Your task to perform on an android device: Open Yahoo.com Image 0: 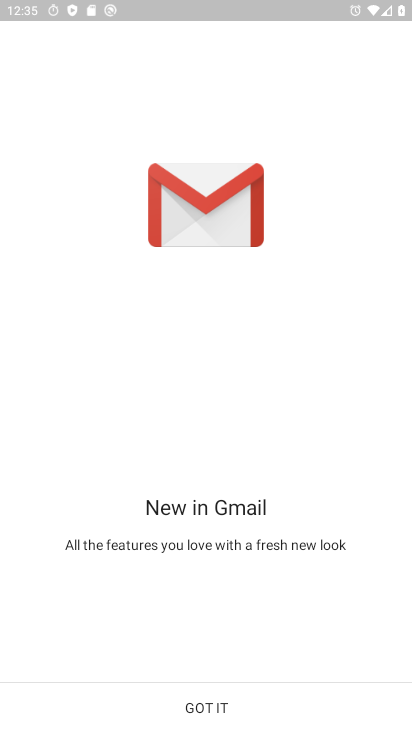
Step 0: press home button
Your task to perform on an android device: Open Yahoo.com Image 1: 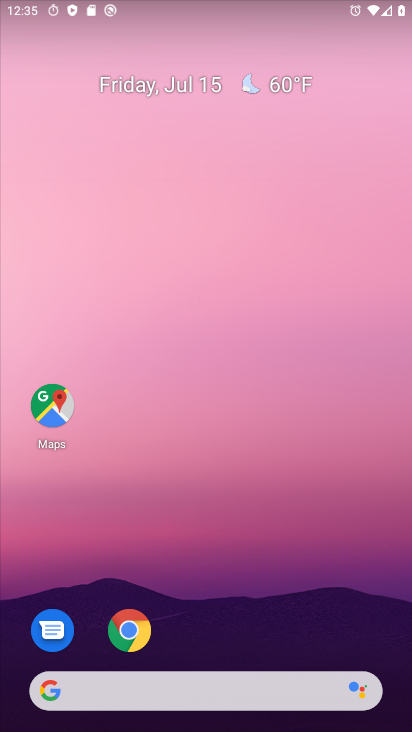
Step 1: click (126, 617)
Your task to perform on an android device: Open Yahoo.com Image 2: 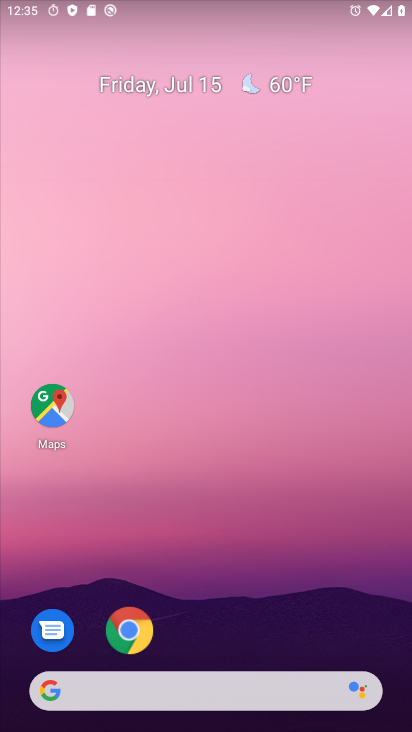
Step 2: click (129, 638)
Your task to perform on an android device: Open Yahoo.com Image 3: 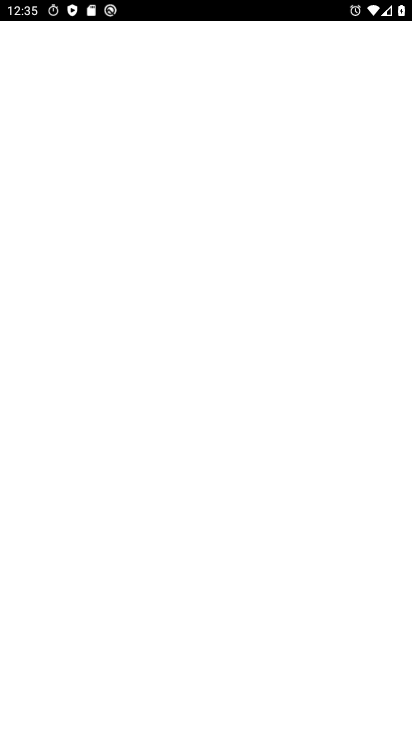
Step 3: click (129, 638)
Your task to perform on an android device: Open Yahoo.com Image 4: 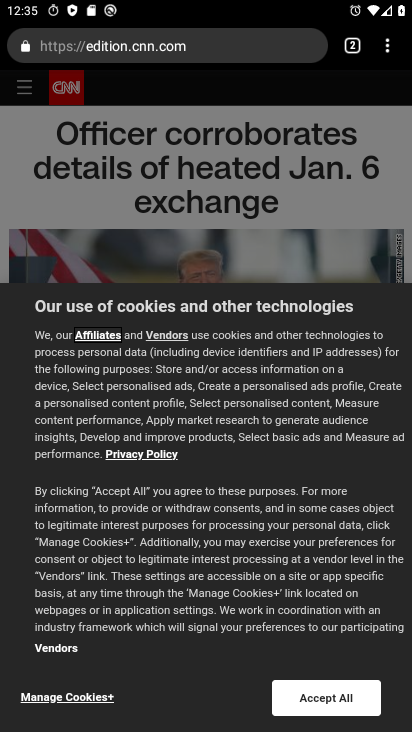
Step 4: click (146, 43)
Your task to perform on an android device: Open Yahoo.com Image 5: 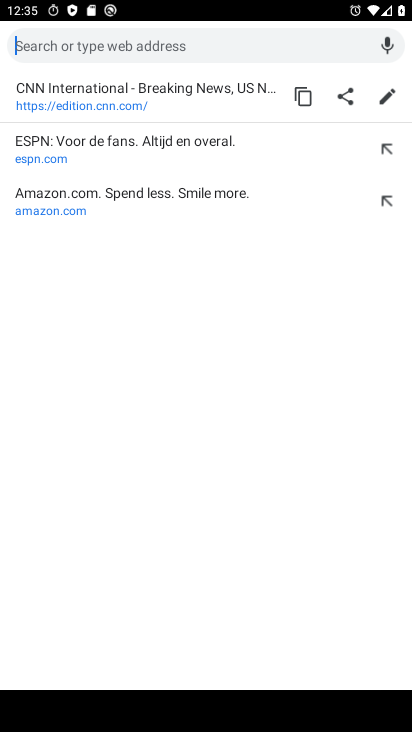
Step 5: type "www.yahoo.com"
Your task to perform on an android device: Open Yahoo.com Image 6: 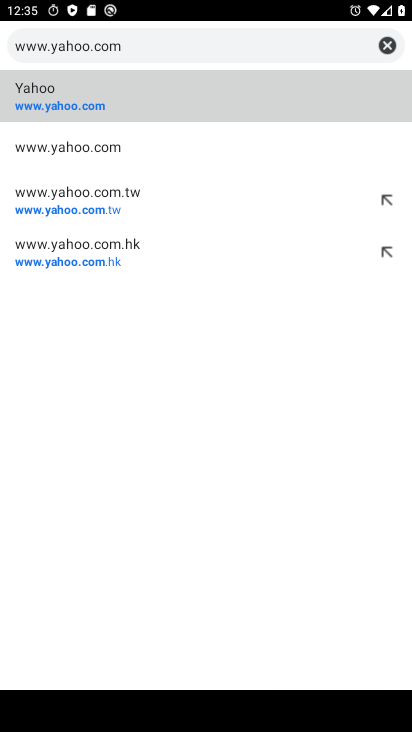
Step 6: click (57, 98)
Your task to perform on an android device: Open Yahoo.com Image 7: 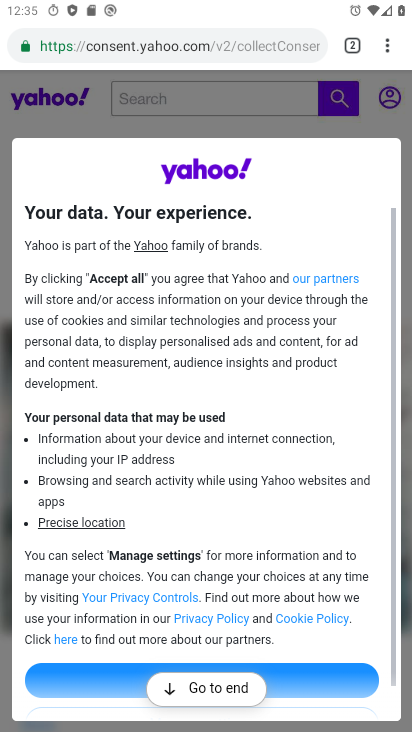
Step 7: task complete